Your task to perform on an android device: Open calendar and show me the third week of next month Image 0: 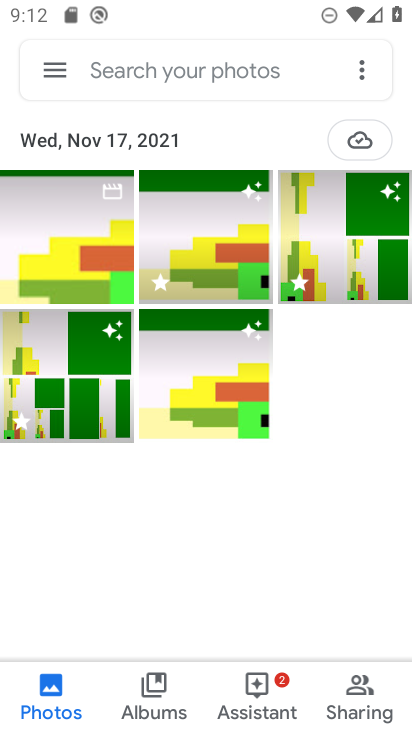
Step 0: press home button
Your task to perform on an android device: Open calendar and show me the third week of next month Image 1: 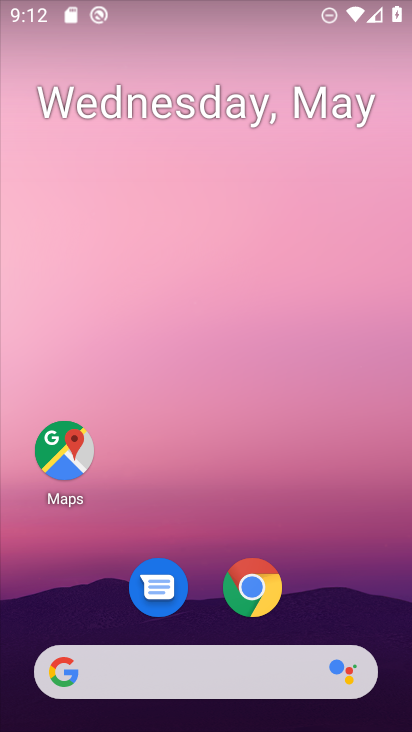
Step 1: drag from (221, 727) to (220, 229)
Your task to perform on an android device: Open calendar and show me the third week of next month Image 2: 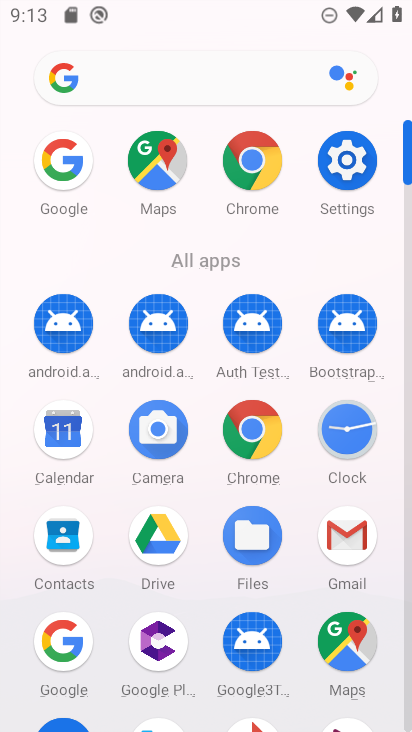
Step 2: click (64, 433)
Your task to perform on an android device: Open calendar and show me the third week of next month Image 3: 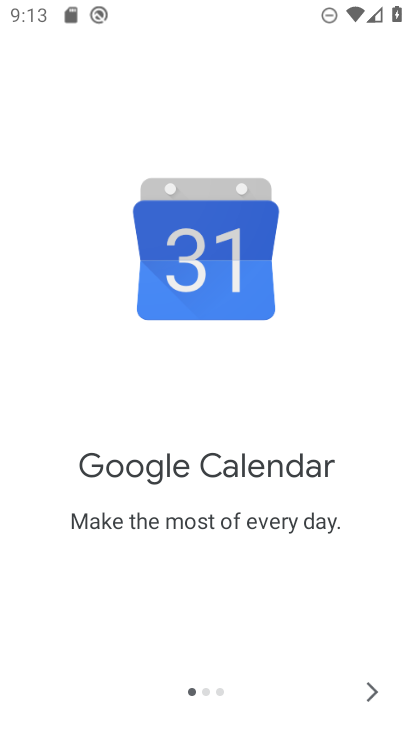
Step 3: click (374, 686)
Your task to perform on an android device: Open calendar and show me the third week of next month Image 4: 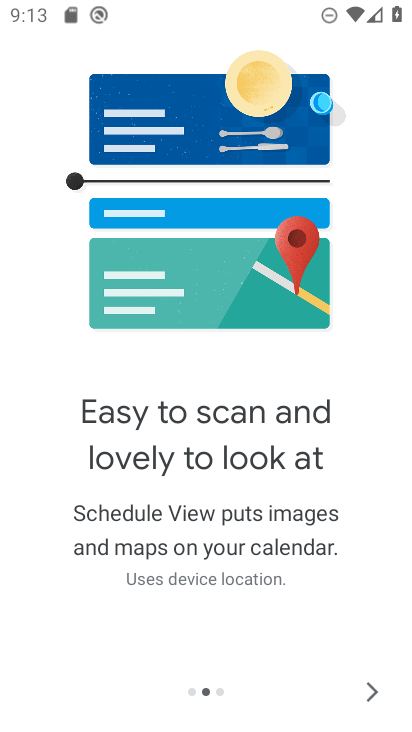
Step 4: click (369, 686)
Your task to perform on an android device: Open calendar and show me the third week of next month Image 5: 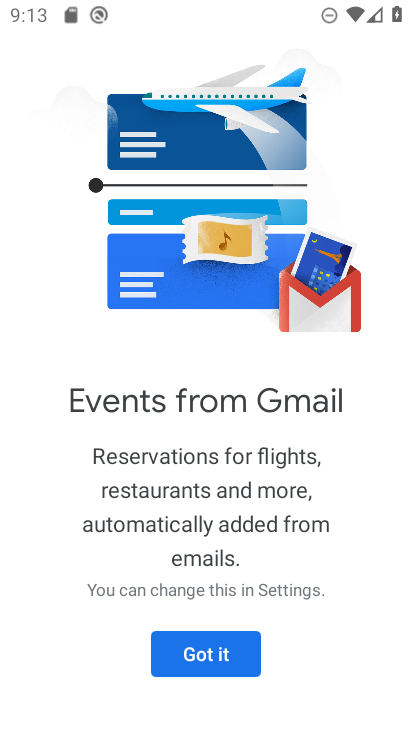
Step 5: click (200, 650)
Your task to perform on an android device: Open calendar and show me the third week of next month Image 6: 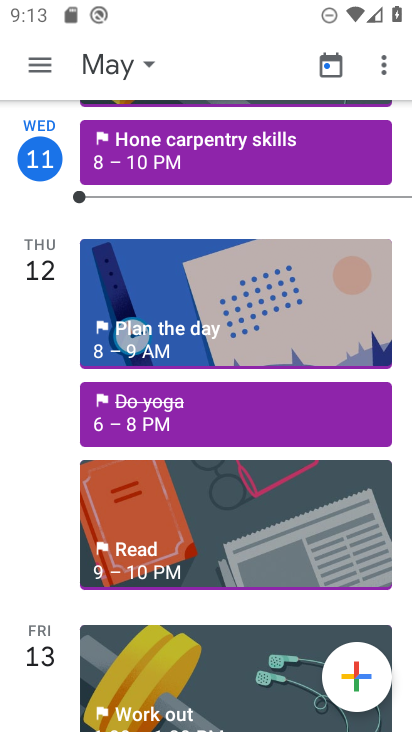
Step 6: click (107, 61)
Your task to perform on an android device: Open calendar and show me the third week of next month Image 7: 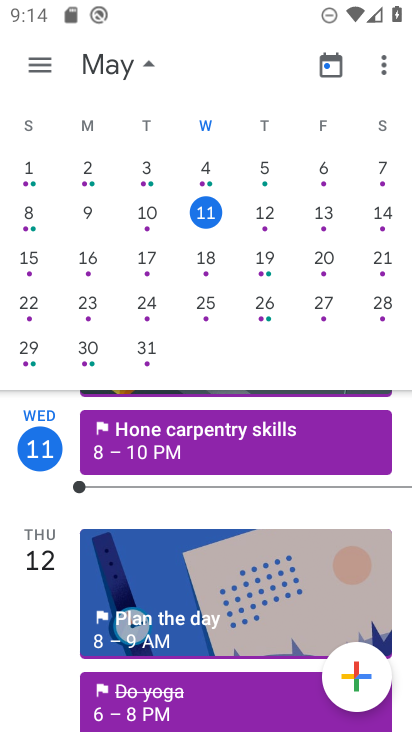
Step 7: drag from (364, 212) to (25, 253)
Your task to perform on an android device: Open calendar and show me the third week of next month Image 8: 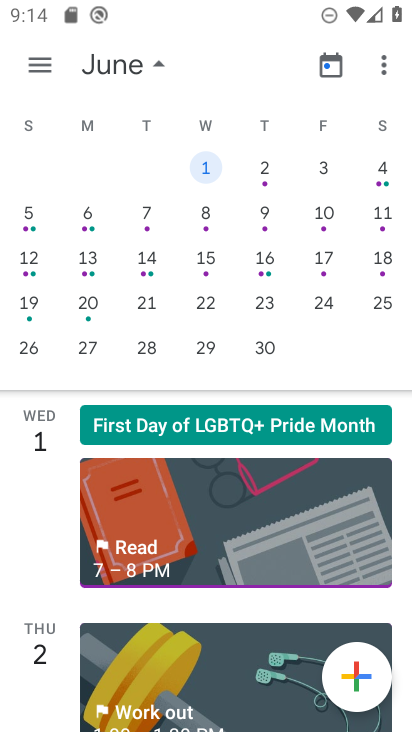
Step 8: click (86, 296)
Your task to perform on an android device: Open calendar and show me the third week of next month Image 9: 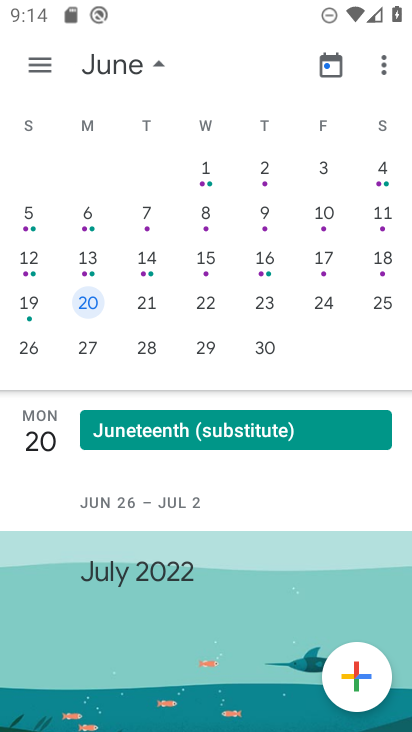
Step 9: click (33, 63)
Your task to perform on an android device: Open calendar and show me the third week of next month Image 10: 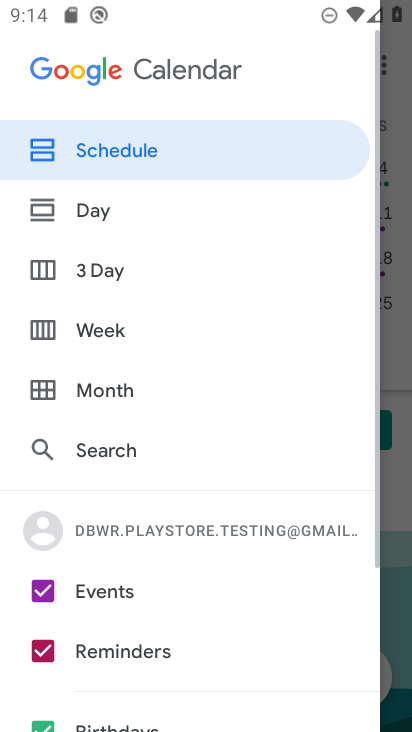
Step 10: click (109, 329)
Your task to perform on an android device: Open calendar and show me the third week of next month Image 11: 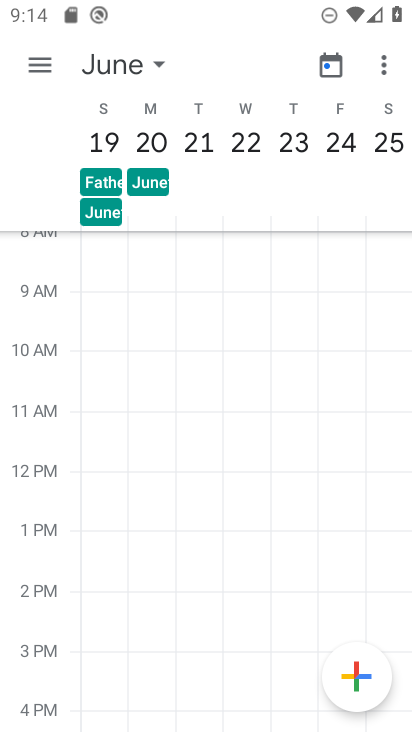
Step 11: task complete